Your task to perform on an android device: toggle sleep mode Image 0: 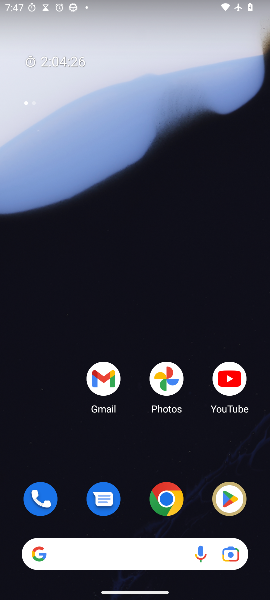
Step 0: drag from (169, 482) to (242, 32)
Your task to perform on an android device: toggle sleep mode Image 1: 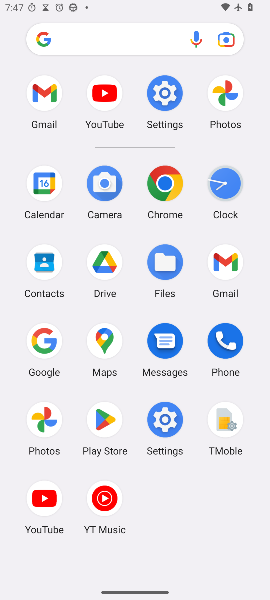
Step 1: click (166, 92)
Your task to perform on an android device: toggle sleep mode Image 2: 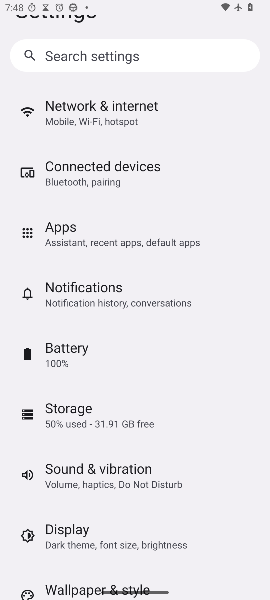
Step 2: click (98, 534)
Your task to perform on an android device: toggle sleep mode Image 3: 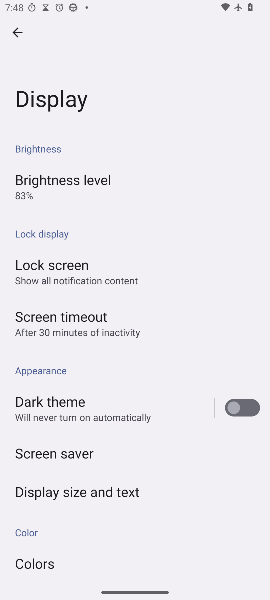
Step 3: drag from (78, 439) to (102, 49)
Your task to perform on an android device: toggle sleep mode Image 4: 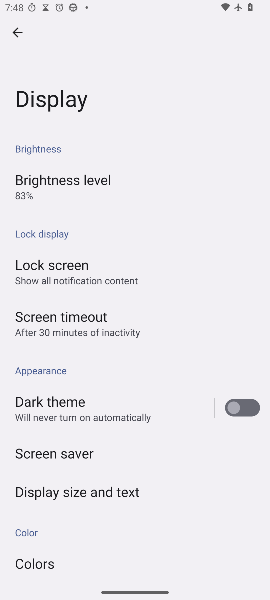
Step 4: drag from (165, 538) to (165, 126)
Your task to perform on an android device: toggle sleep mode Image 5: 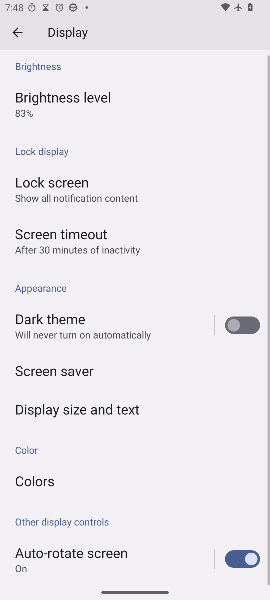
Step 5: drag from (143, 178) to (184, 477)
Your task to perform on an android device: toggle sleep mode Image 6: 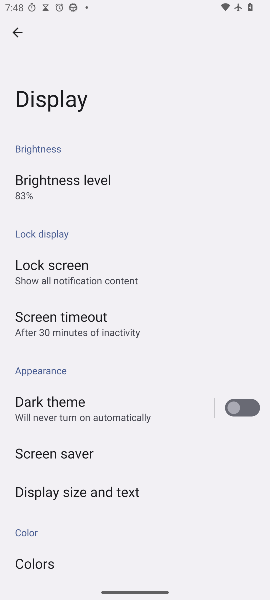
Step 6: drag from (125, 271) to (172, 541)
Your task to perform on an android device: toggle sleep mode Image 7: 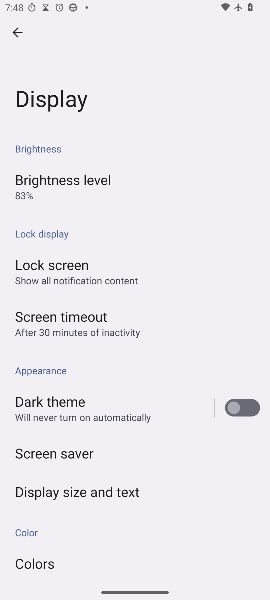
Step 7: click (55, 329)
Your task to perform on an android device: toggle sleep mode Image 8: 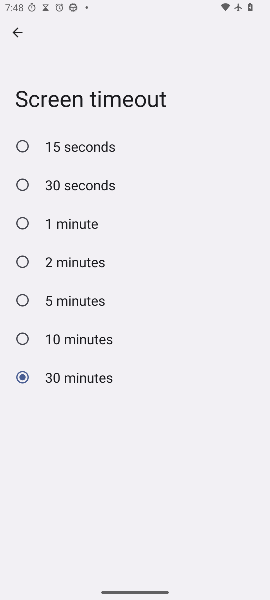
Step 8: click (53, 269)
Your task to perform on an android device: toggle sleep mode Image 9: 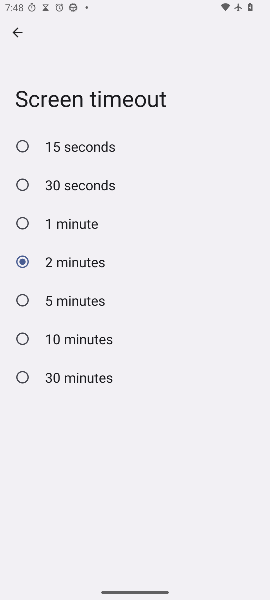
Step 9: task complete